Your task to perform on an android device: Open CNN.com Image 0: 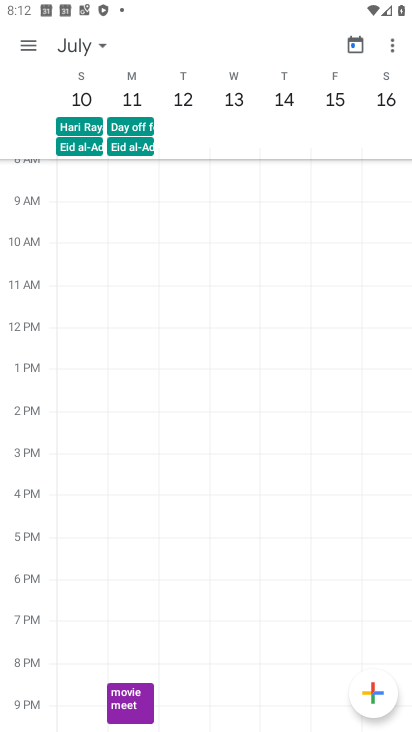
Step 0: press home button
Your task to perform on an android device: Open CNN.com Image 1: 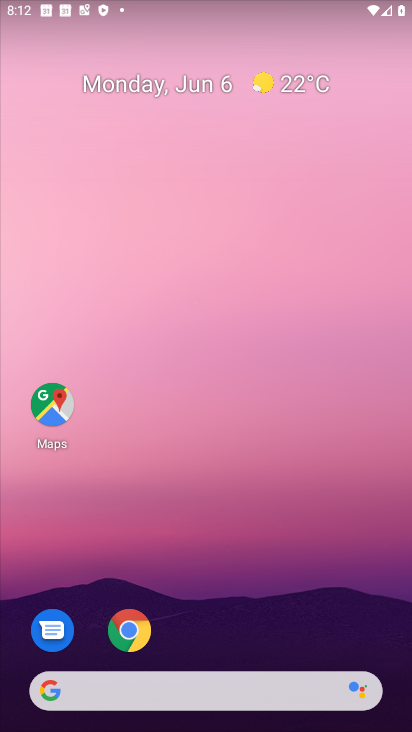
Step 1: click (125, 618)
Your task to perform on an android device: Open CNN.com Image 2: 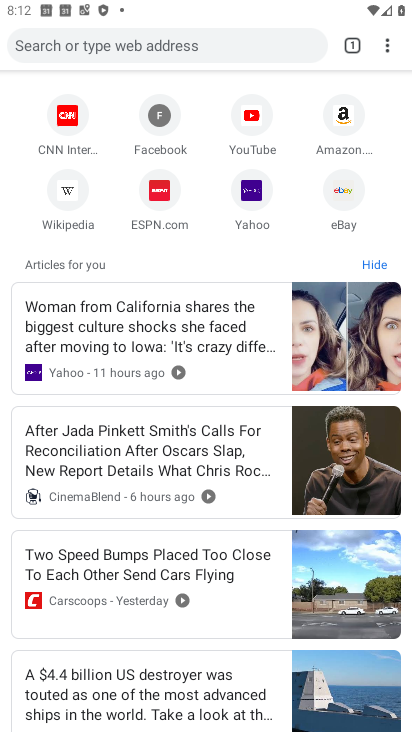
Step 2: click (123, 47)
Your task to perform on an android device: Open CNN.com Image 3: 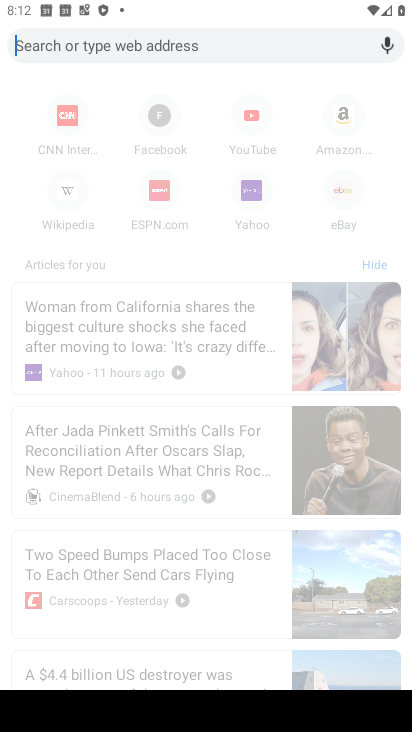
Step 3: type "cnn"
Your task to perform on an android device: Open CNN.com Image 4: 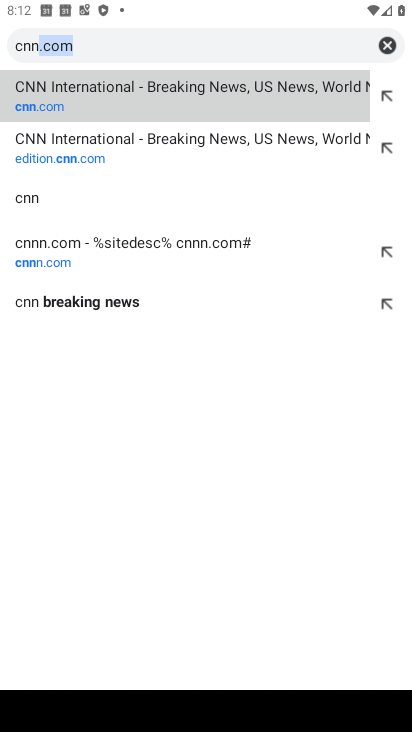
Step 4: click (108, 109)
Your task to perform on an android device: Open CNN.com Image 5: 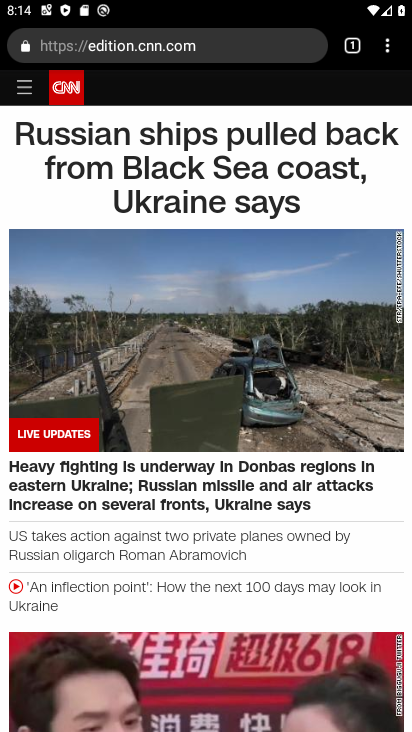
Step 5: task complete